Your task to perform on an android device: turn on the 12-hour format for clock Image 0: 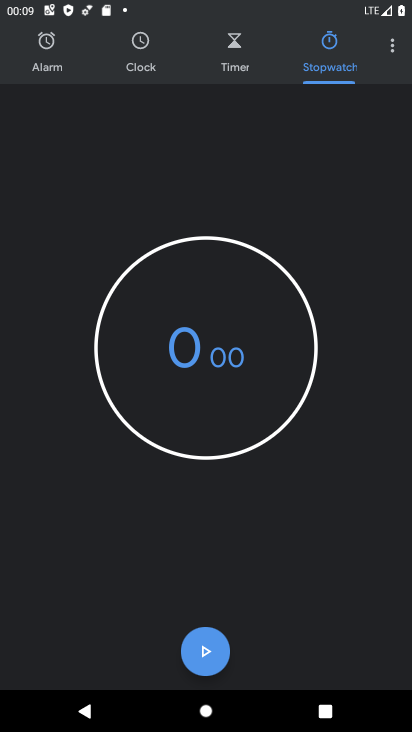
Step 0: drag from (390, 42) to (318, 92)
Your task to perform on an android device: turn on the 12-hour format for clock Image 1: 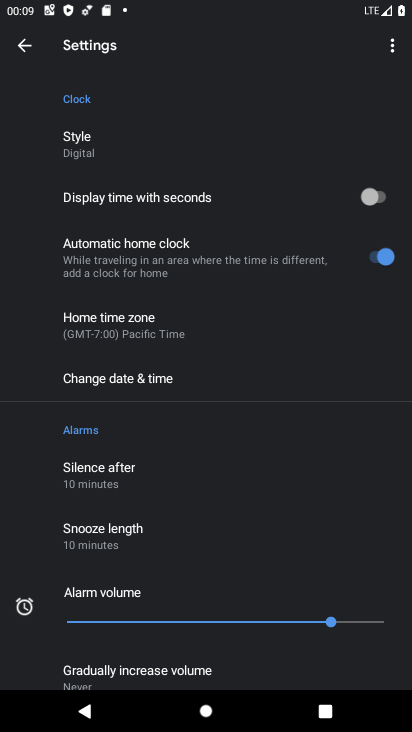
Step 1: click (168, 373)
Your task to perform on an android device: turn on the 12-hour format for clock Image 2: 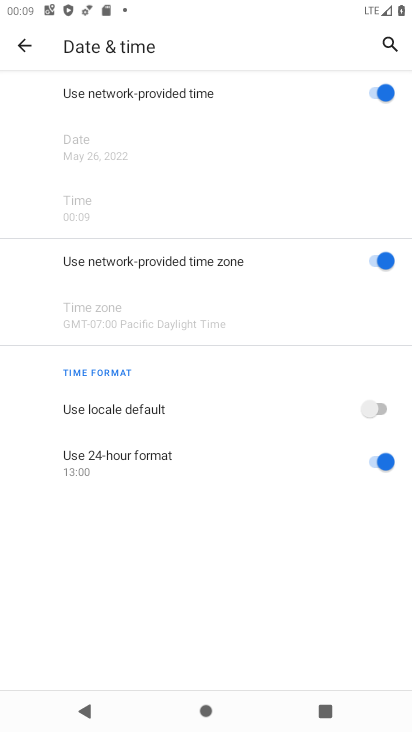
Step 2: click (378, 417)
Your task to perform on an android device: turn on the 12-hour format for clock Image 3: 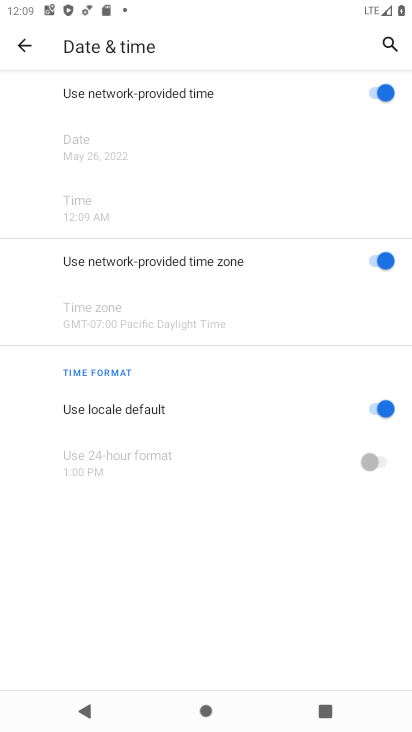
Step 3: task complete